Your task to perform on an android device: empty trash in the gmail app Image 0: 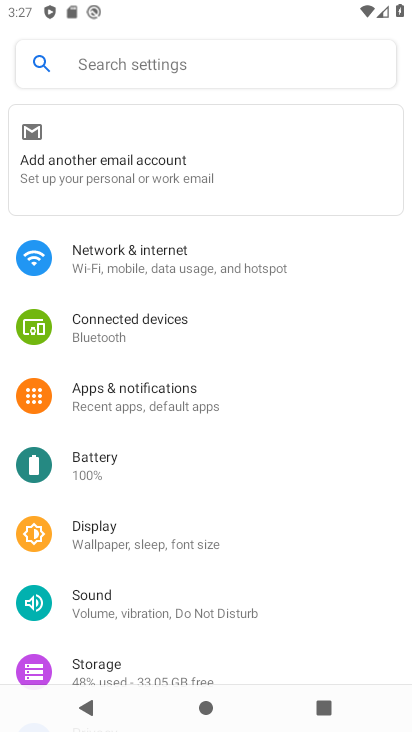
Step 0: press home button
Your task to perform on an android device: empty trash in the gmail app Image 1: 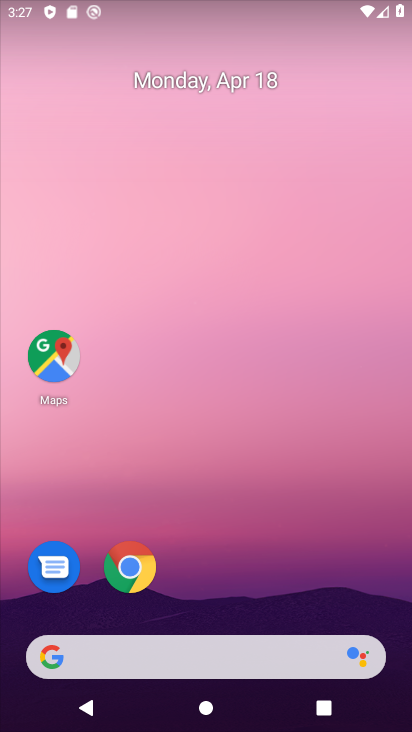
Step 1: drag from (266, 535) to (327, 106)
Your task to perform on an android device: empty trash in the gmail app Image 2: 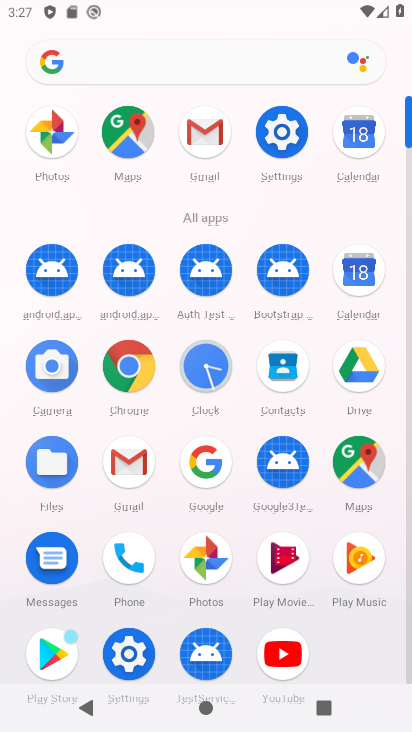
Step 2: click (196, 139)
Your task to perform on an android device: empty trash in the gmail app Image 3: 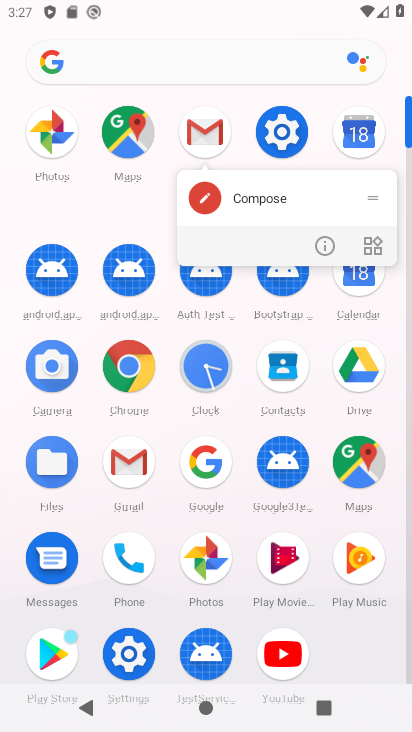
Step 3: click (197, 147)
Your task to perform on an android device: empty trash in the gmail app Image 4: 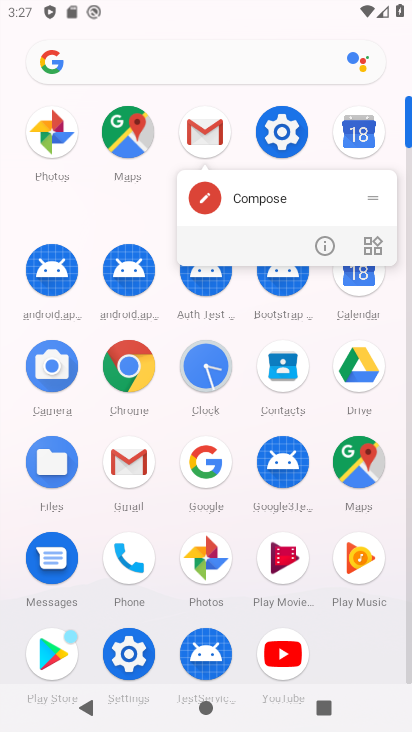
Step 4: click (222, 136)
Your task to perform on an android device: empty trash in the gmail app Image 5: 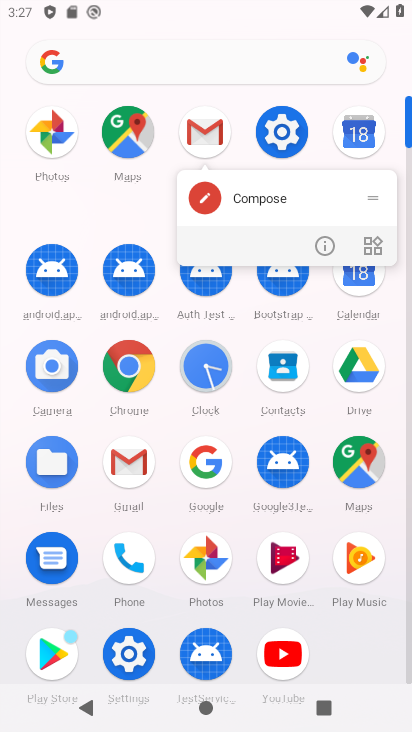
Step 5: click (132, 464)
Your task to perform on an android device: empty trash in the gmail app Image 6: 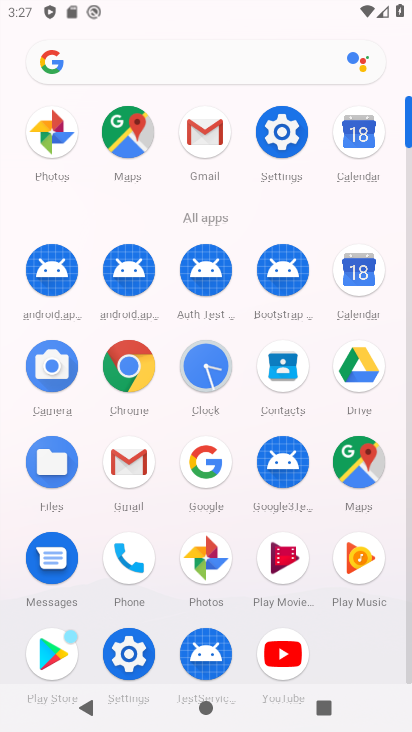
Step 6: click (143, 473)
Your task to perform on an android device: empty trash in the gmail app Image 7: 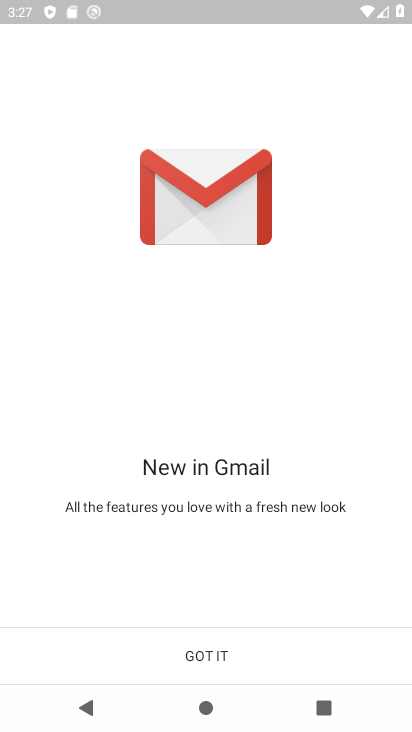
Step 7: click (220, 657)
Your task to perform on an android device: empty trash in the gmail app Image 8: 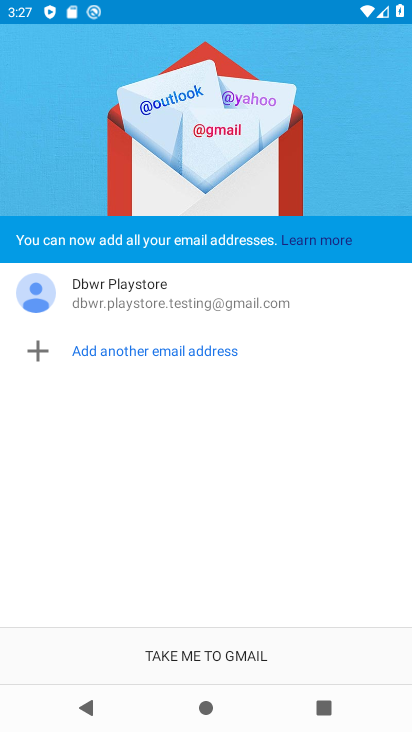
Step 8: click (209, 651)
Your task to perform on an android device: empty trash in the gmail app Image 9: 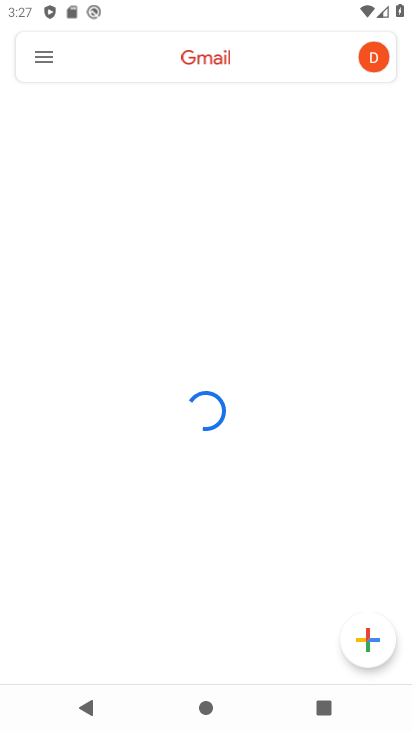
Step 9: click (46, 55)
Your task to perform on an android device: empty trash in the gmail app Image 10: 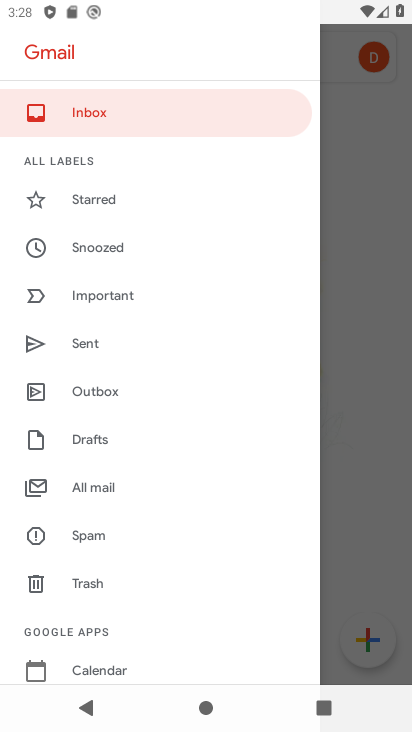
Step 10: click (105, 575)
Your task to perform on an android device: empty trash in the gmail app Image 11: 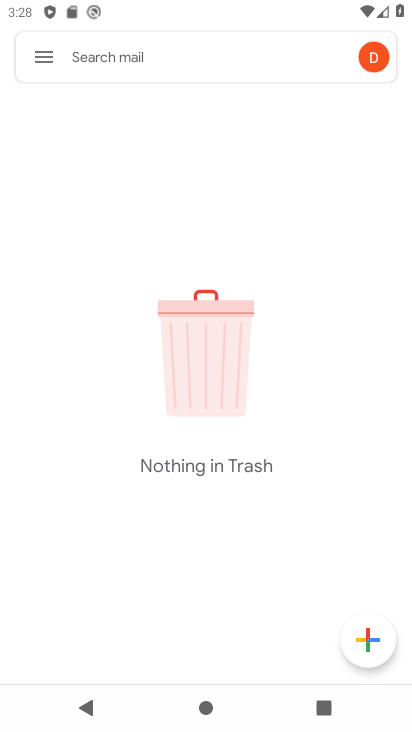
Step 11: task complete